Your task to perform on an android device: Open the Play Movies app and select the watchlist tab. Image 0: 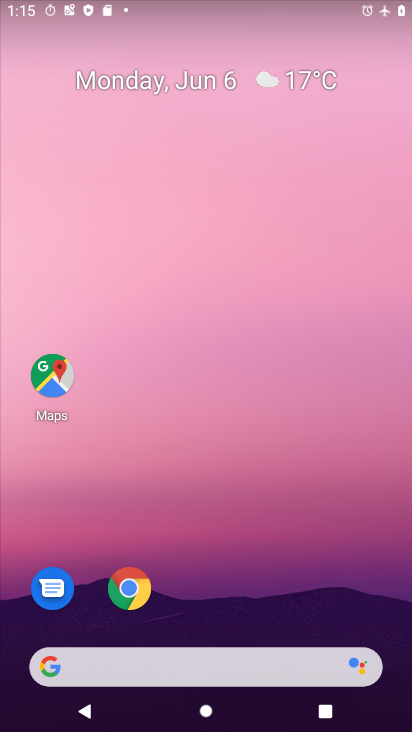
Step 0: drag from (246, 590) to (337, 108)
Your task to perform on an android device: Open the Play Movies app and select the watchlist tab. Image 1: 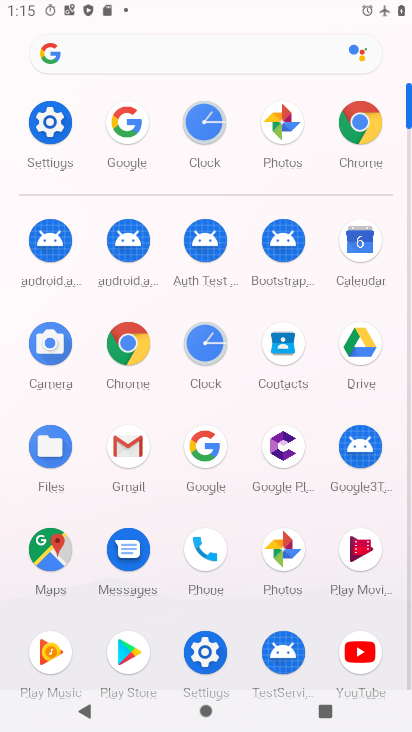
Step 1: click (358, 536)
Your task to perform on an android device: Open the Play Movies app and select the watchlist tab. Image 2: 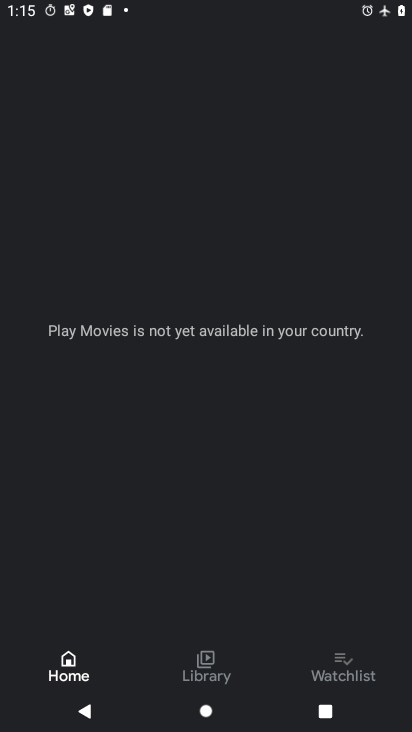
Step 2: click (364, 660)
Your task to perform on an android device: Open the Play Movies app and select the watchlist tab. Image 3: 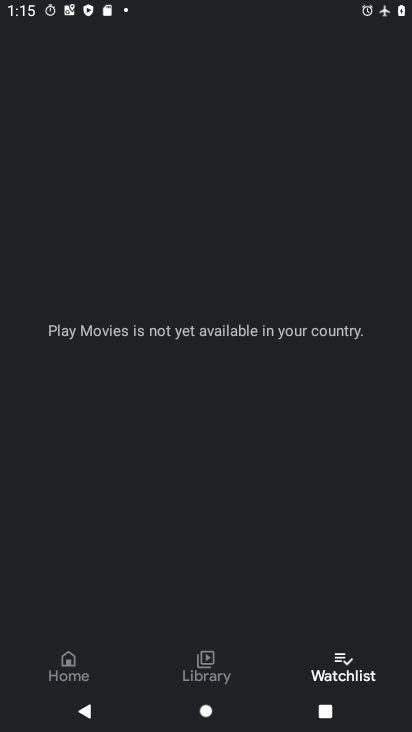
Step 3: task complete